Your task to perform on an android device: move a message to another label in the gmail app Image 0: 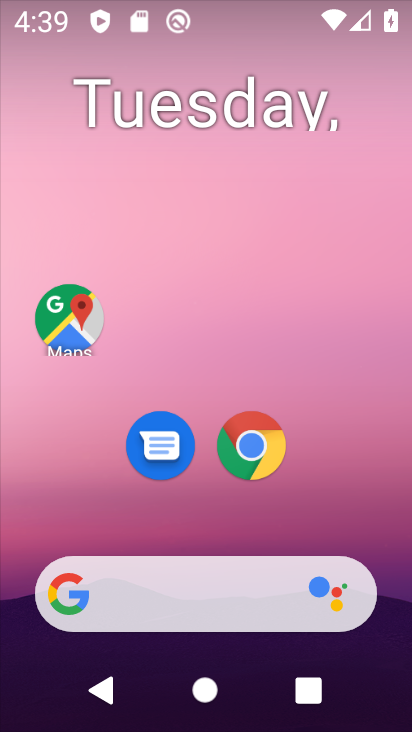
Step 0: drag from (334, 531) to (325, 187)
Your task to perform on an android device: move a message to another label in the gmail app Image 1: 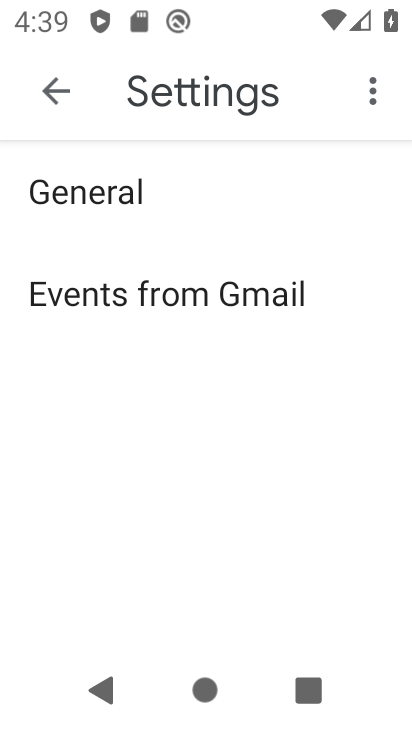
Step 1: press home button
Your task to perform on an android device: move a message to another label in the gmail app Image 2: 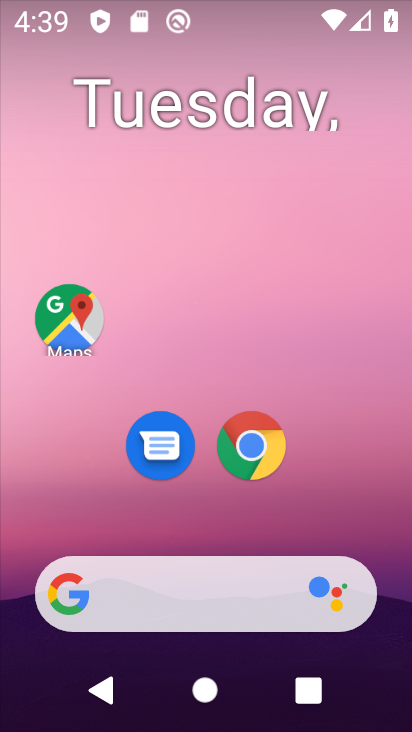
Step 2: drag from (324, 449) to (349, 151)
Your task to perform on an android device: move a message to another label in the gmail app Image 3: 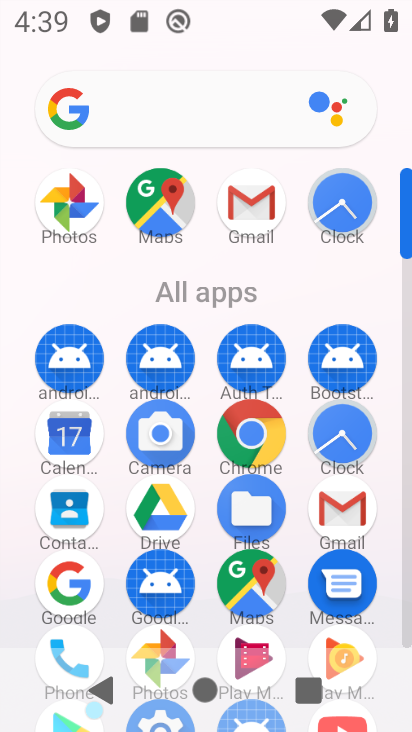
Step 3: click (276, 211)
Your task to perform on an android device: move a message to another label in the gmail app Image 4: 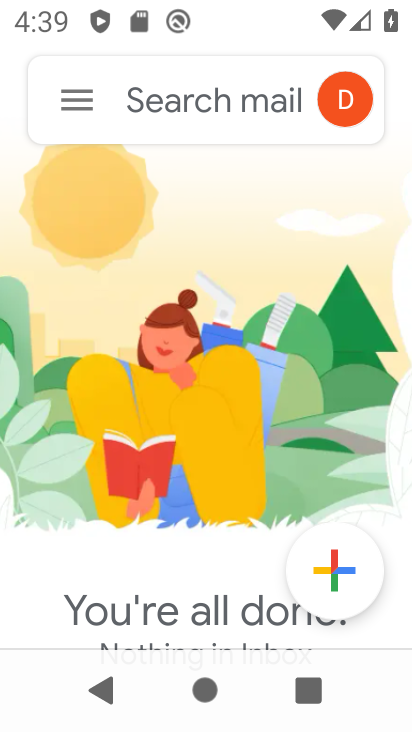
Step 4: task complete